Your task to perform on an android device: Show the shopping cart on target. Add logitech g903 to the cart on target, then select checkout. Image 0: 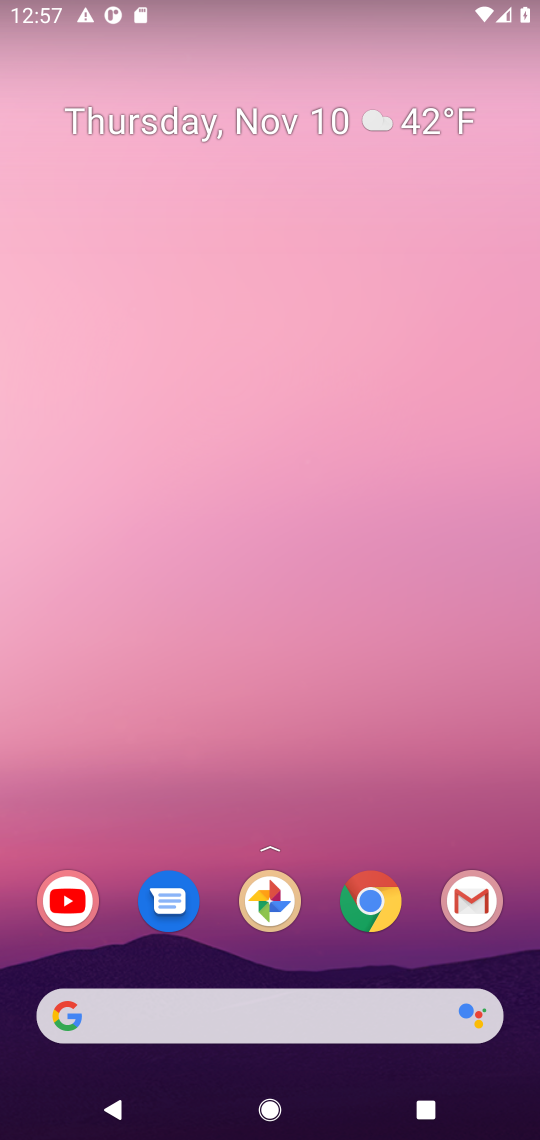
Step 0: drag from (320, 631) to (36, 14)
Your task to perform on an android device: Show the shopping cart on target. Add logitech g903 to the cart on target, then select checkout. Image 1: 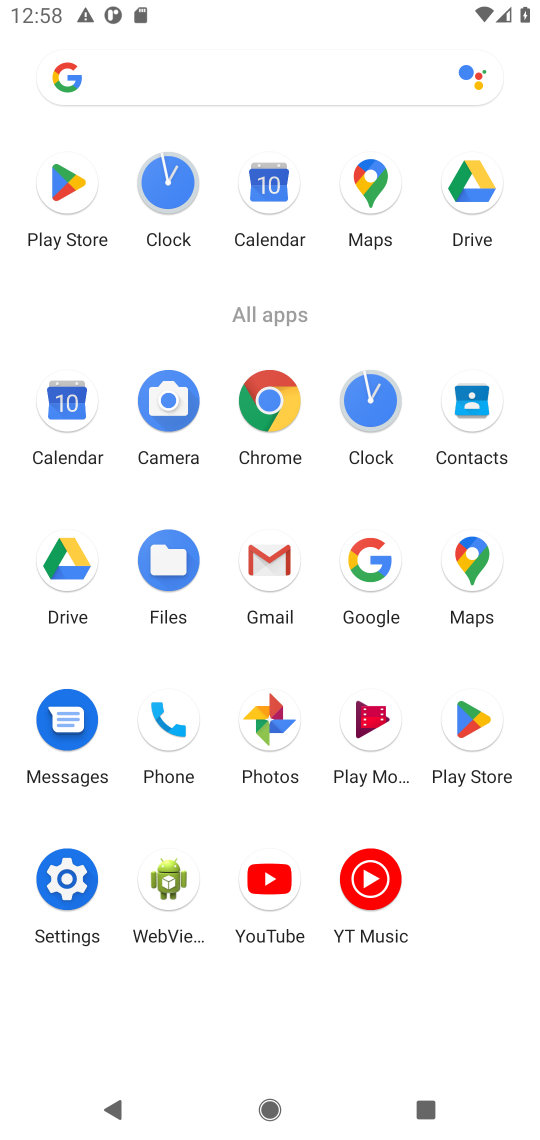
Step 1: click (265, 401)
Your task to perform on an android device: Show the shopping cart on target. Add logitech g903 to the cart on target, then select checkout. Image 2: 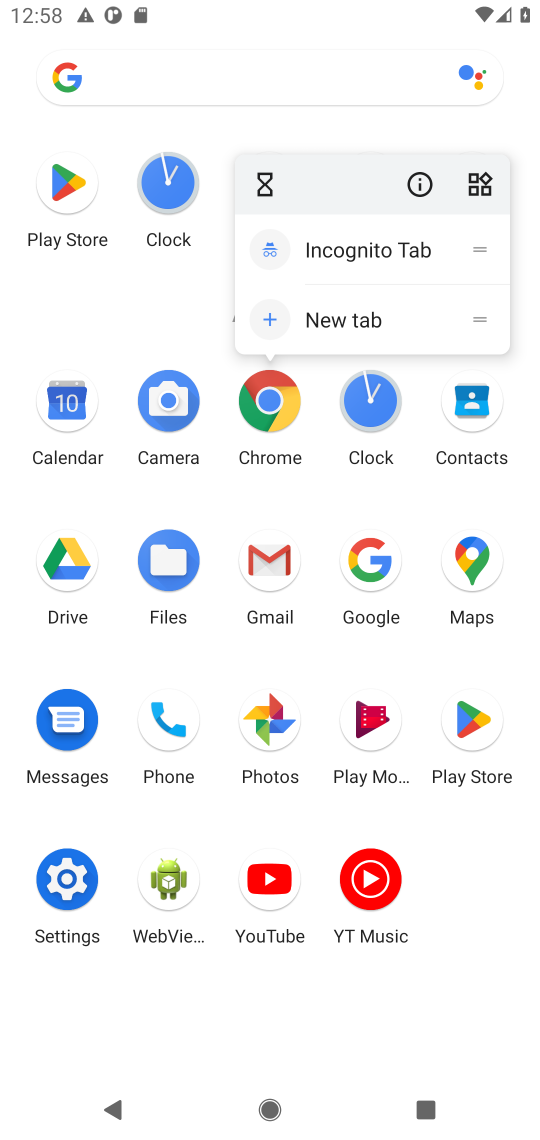
Step 2: click (239, 417)
Your task to perform on an android device: Show the shopping cart on target. Add logitech g903 to the cart on target, then select checkout. Image 3: 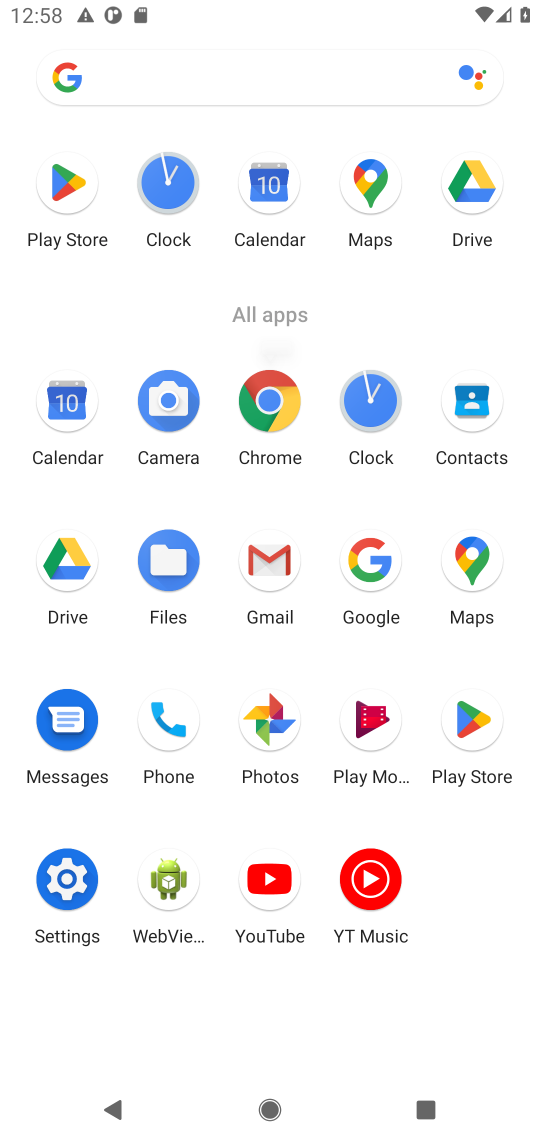
Step 3: click (250, 414)
Your task to perform on an android device: Show the shopping cart on target. Add logitech g903 to the cart on target, then select checkout. Image 4: 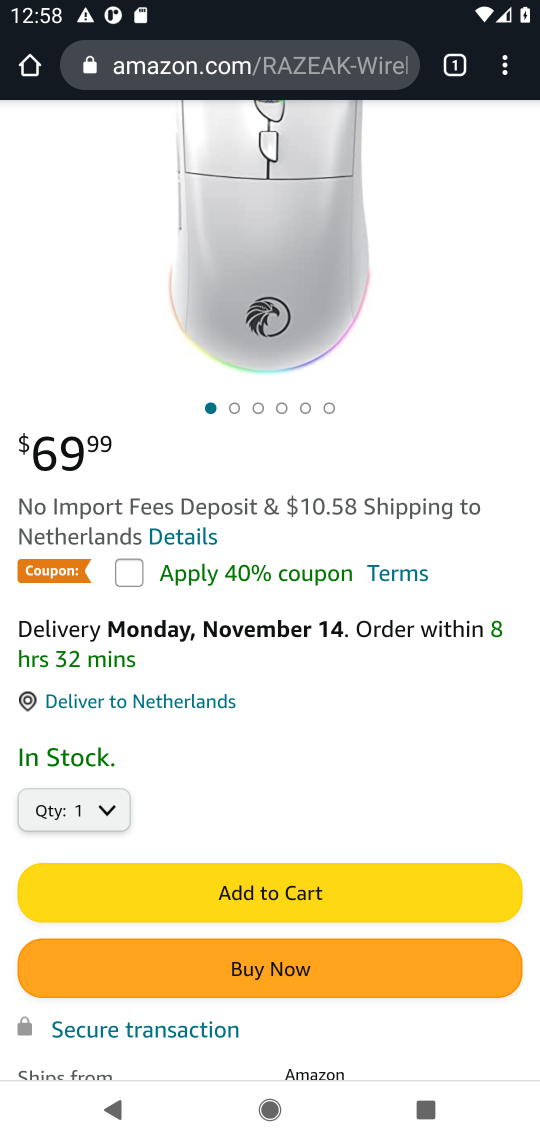
Step 4: click (198, 89)
Your task to perform on an android device: Show the shopping cart on target. Add logitech g903 to the cart on target, then select checkout. Image 5: 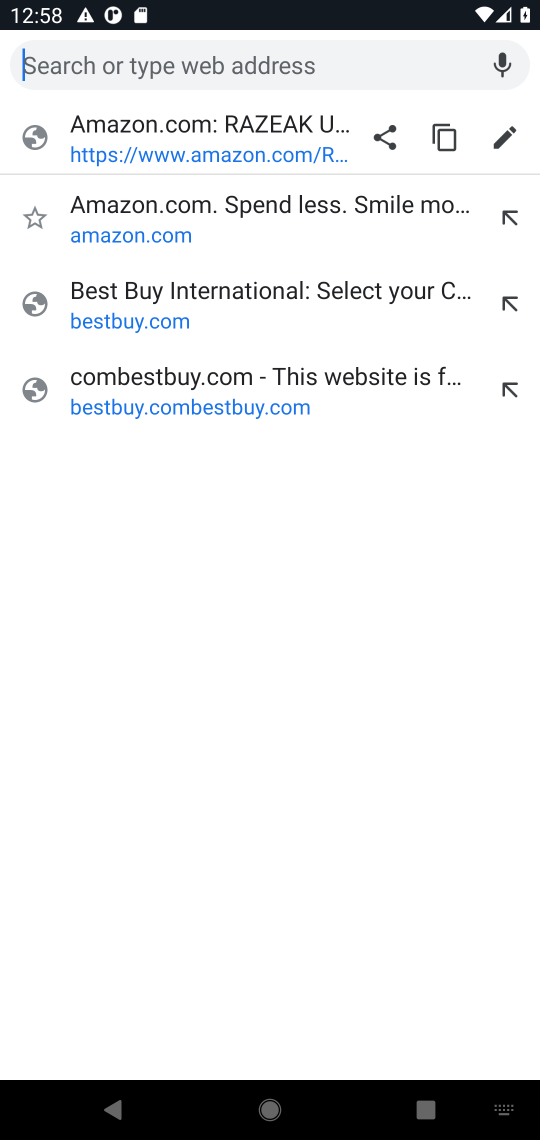
Step 5: type "target"
Your task to perform on an android device: Show the shopping cart on target. Add logitech g903 to the cart on target, then select checkout. Image 6: 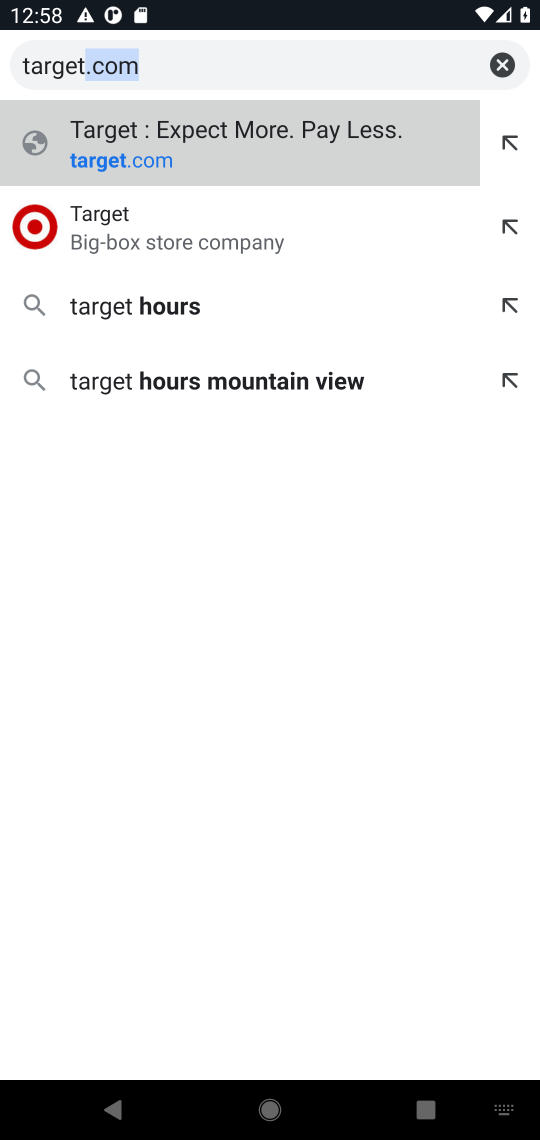
Step 6: press enter
Your task to perform on an android device: Show the shopping cart on target. Add logitech g903 to the cart on target, then select checkout. Image 7: 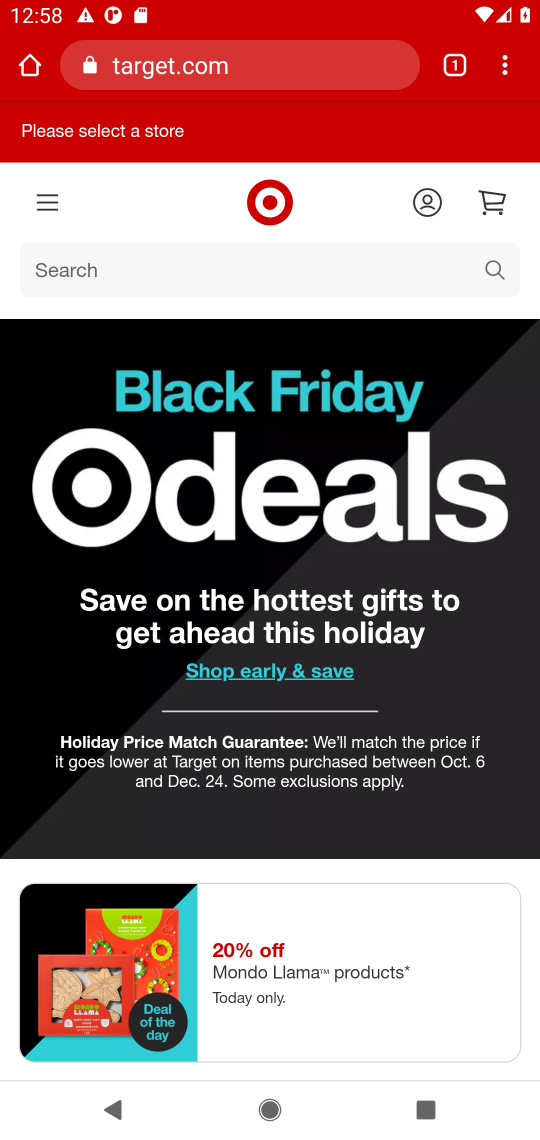
Step 7: click (131, 261)
Your task to perform on an android device: Show the shopping cart on target. Add logitech g903 to the cart on target, then select checkout. Image 8: 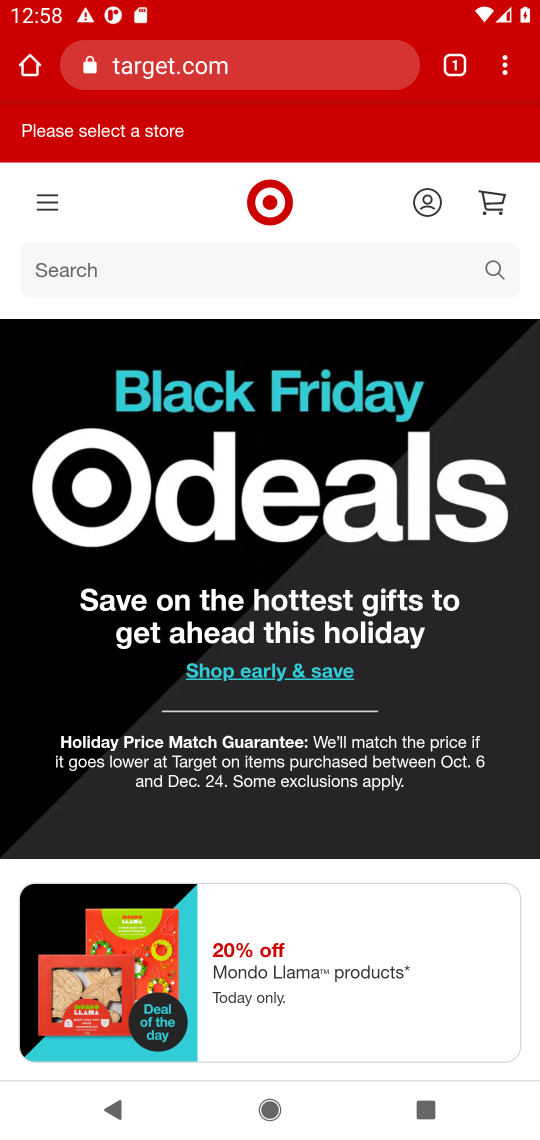
Step 8: click (199, 267)
Your task to perform on an android device: Show the shopping cart on target. Add logitech g903 to the cart on target, then select checkout. Image 9: 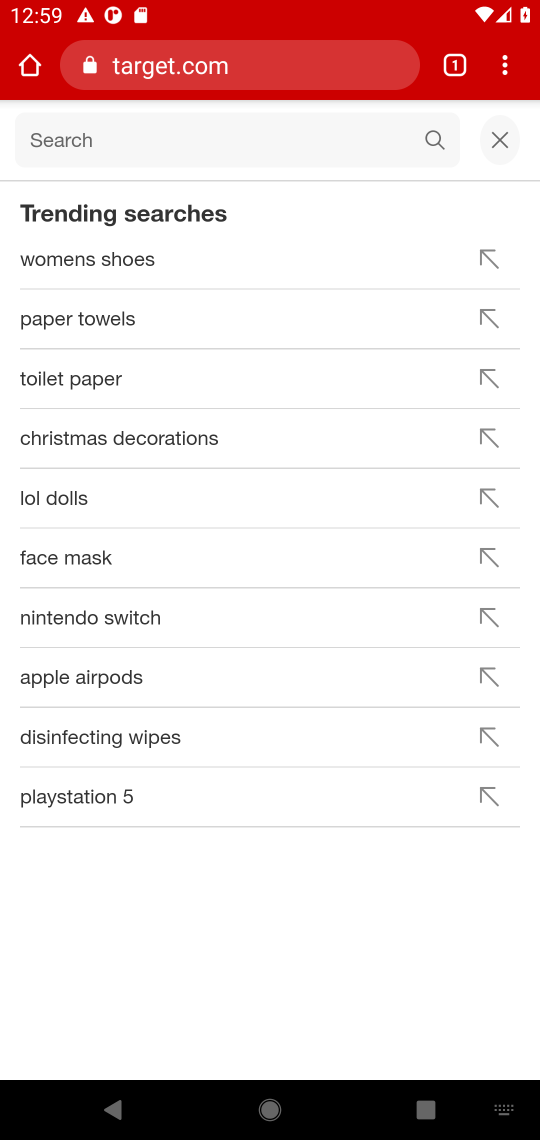
Step 9: type " logitech g903"
Your task to perform on an android device: Show the shopping cart on target. Add logitech g903 to the cart on target, then select checkout. Image 10: 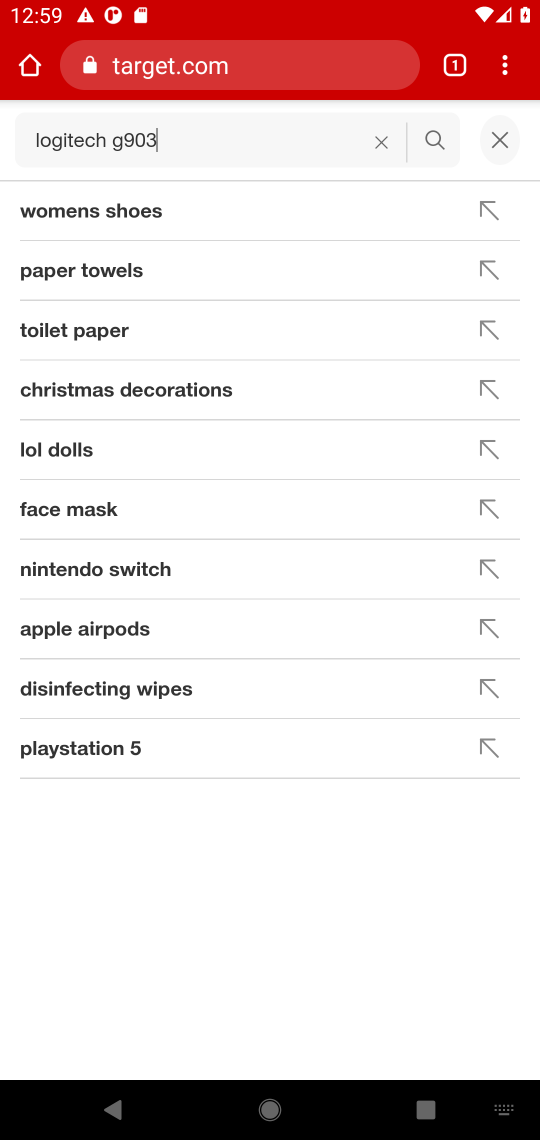
Step 10: press enter
Your task to perform on an android device: Show the shopping cart on target. Add logitech g903 to the cart on target, then select checkout. Image 11: 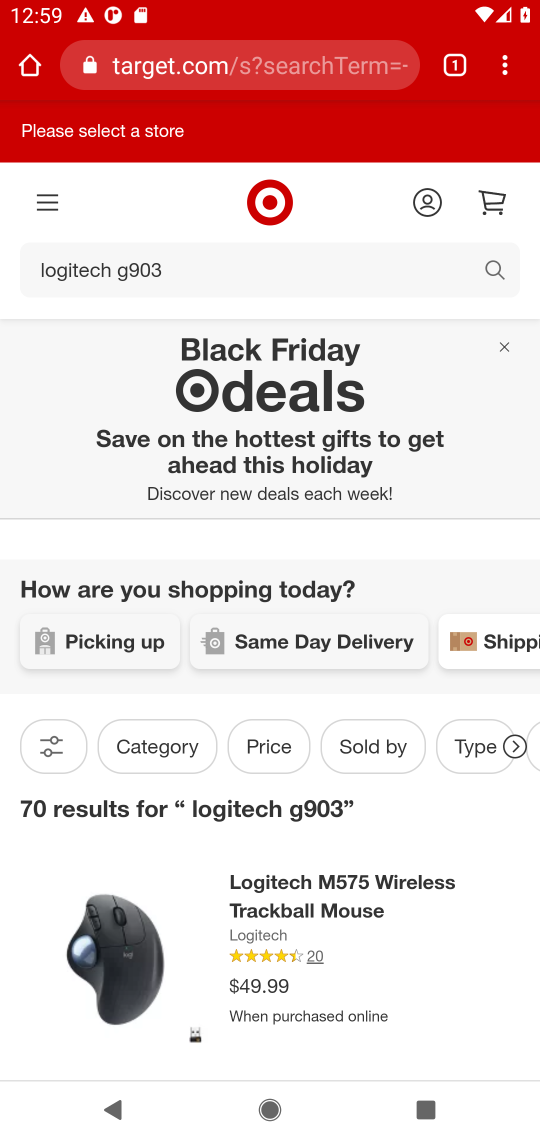
Step 11: click (287, 924)
Your task to perform on an android device: Show the shopping cart on target. Add logitech g903 to the cart on target, then select checkout. Image 12: 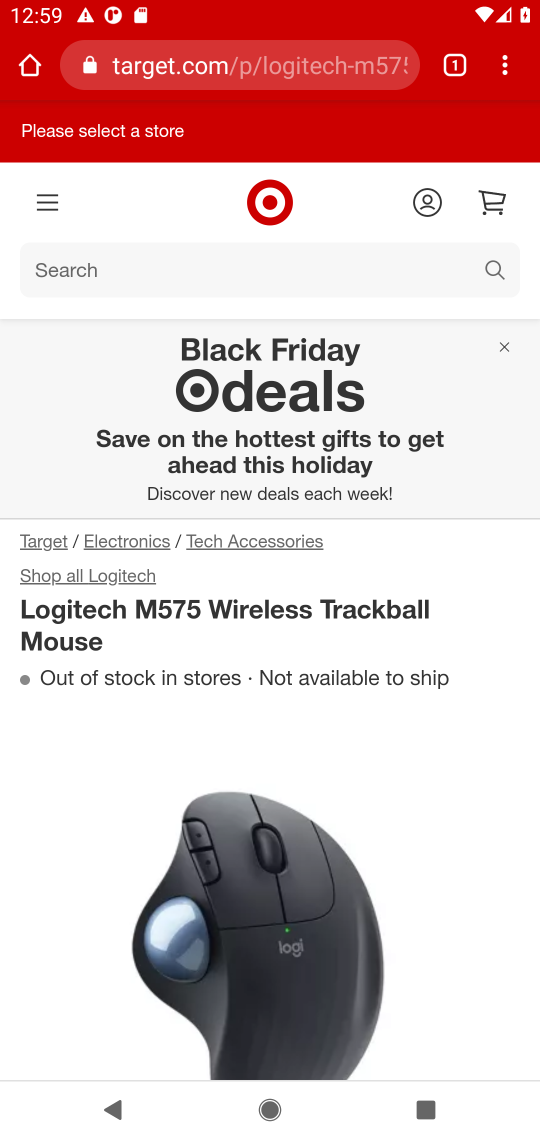
Step 12: click (353, 372)
Your task to perform on an android device: Show the shopping cart on target. Add logitech g903 to the cart on target, then select checkout. Image 13: 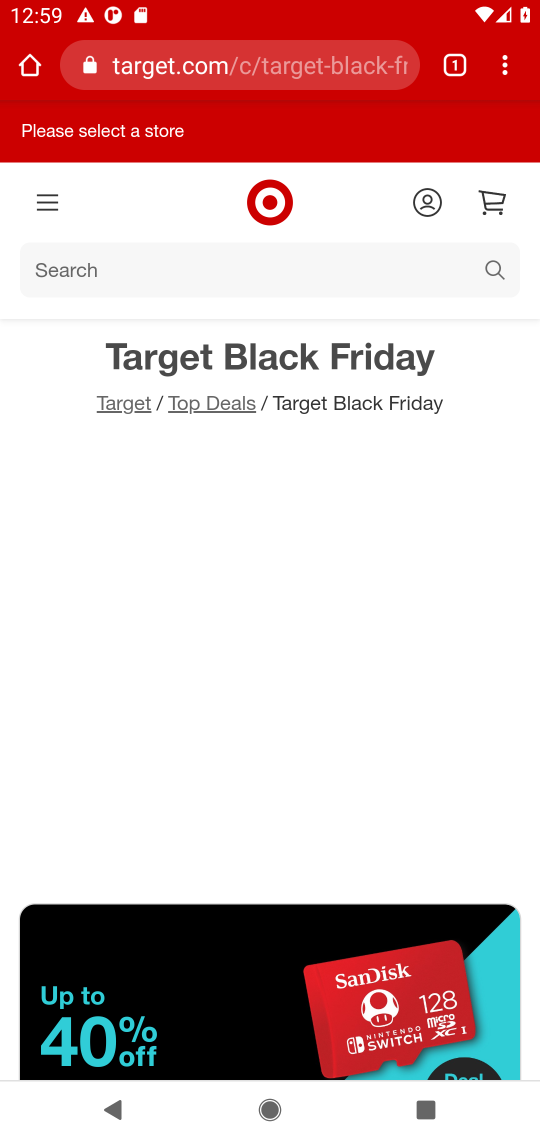
Step 13: drag from (314, 794) to (329, 352)
Your task to perform on an android device: Show the shopping cart on target. Add logitech g903 to the cart on target, then select checkout. Image 14: 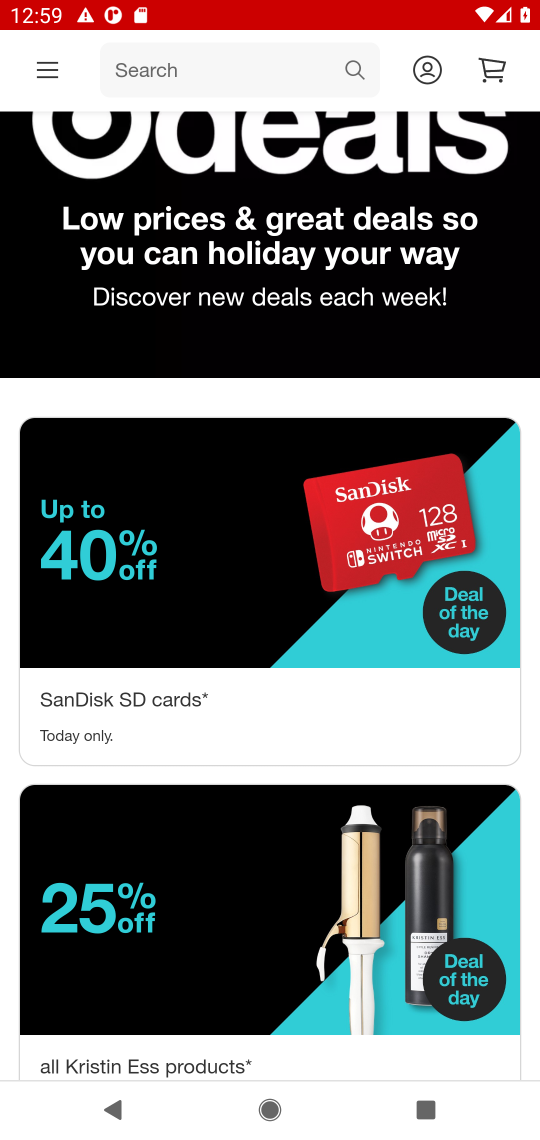
Step 14: drag from (203, 696) to (290, 232)
Your task to perform on an android device: Show the shopping cart on target. Add logitech g903 to the cart on target, then select checkout. Image 15: 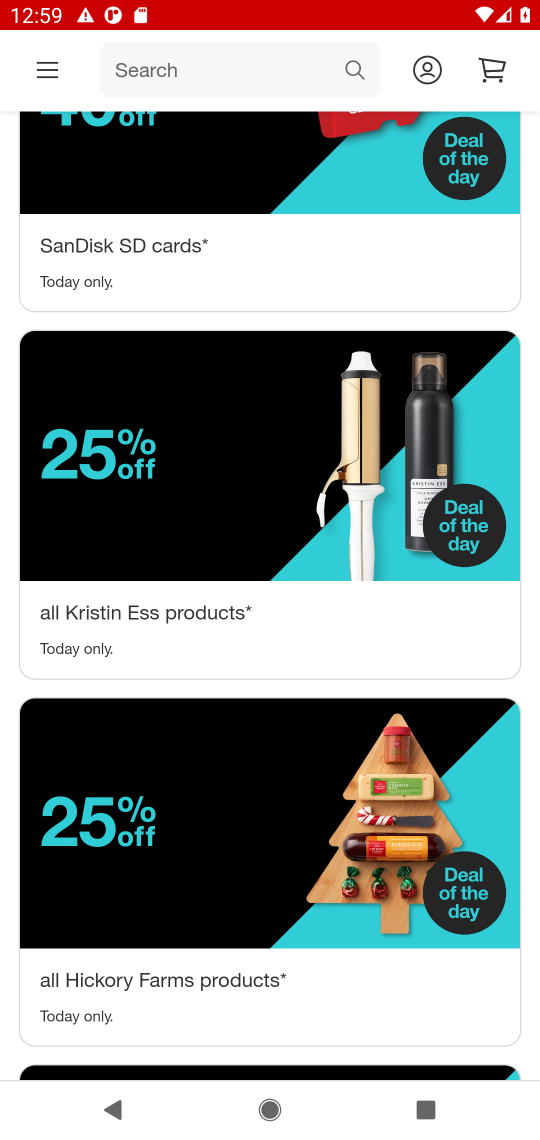
Step 15: drag from (289, 236) to (165, 715)
Your task to perform on an android device: Show the shopping cart on target. Add logitech g903 to the cart on target, then select checkout. Image 16: 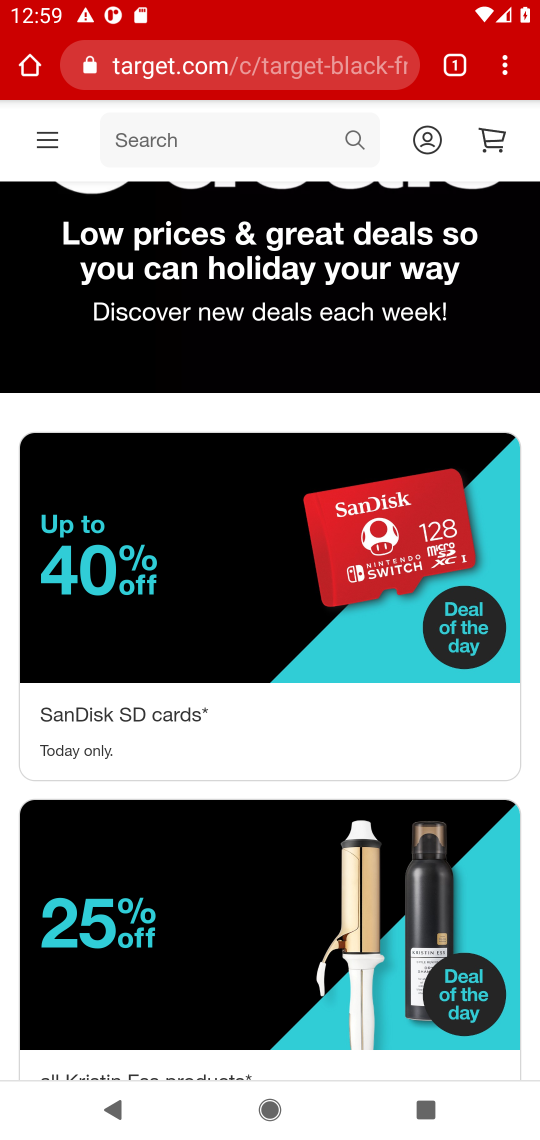
Step 16: drag from (237, 369) to (185, 789)
Your task to perform on an android device: Show the shopping cart on target. Add logitech g903 to the cart on target, then select checkout. Image 17: 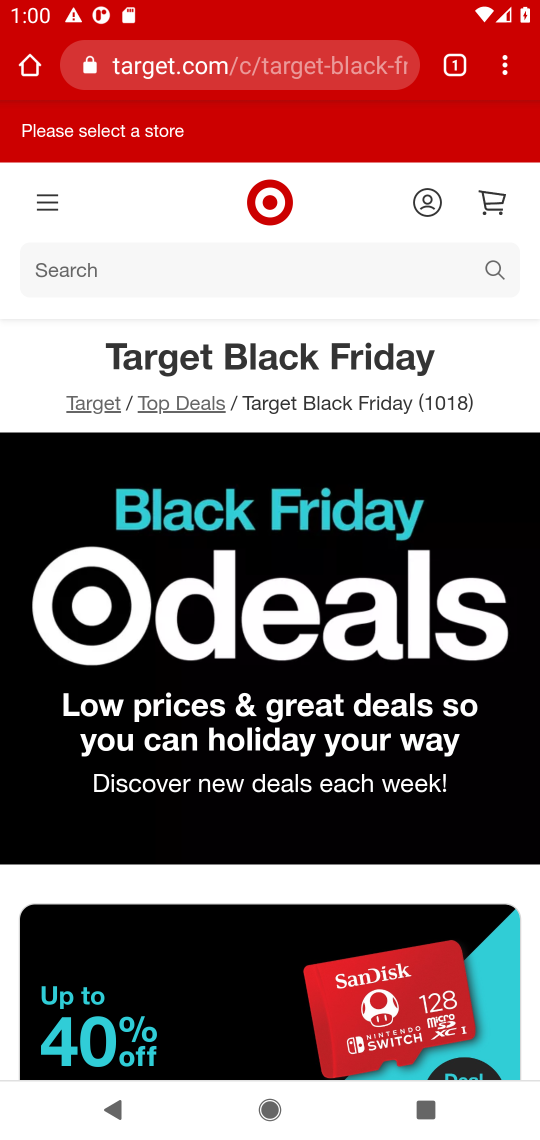
Step 17: drag from (188, 398) to (137, 708)
Your task to perform on an android device: Show the shopping cart on target. Add logitech g903 to the cart on target, then select checkout. Image 18: 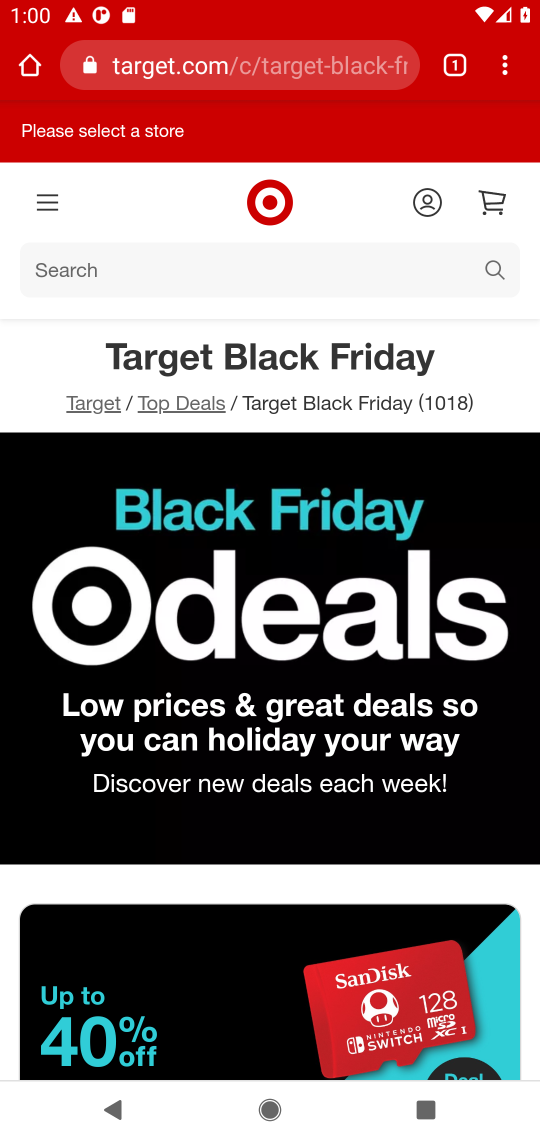
Step 18: click (109, 266)
Your task to perform on an android device: Show the shopping cart on target. Add logitech g903 to the cart on target, then select checkout. Image 19: 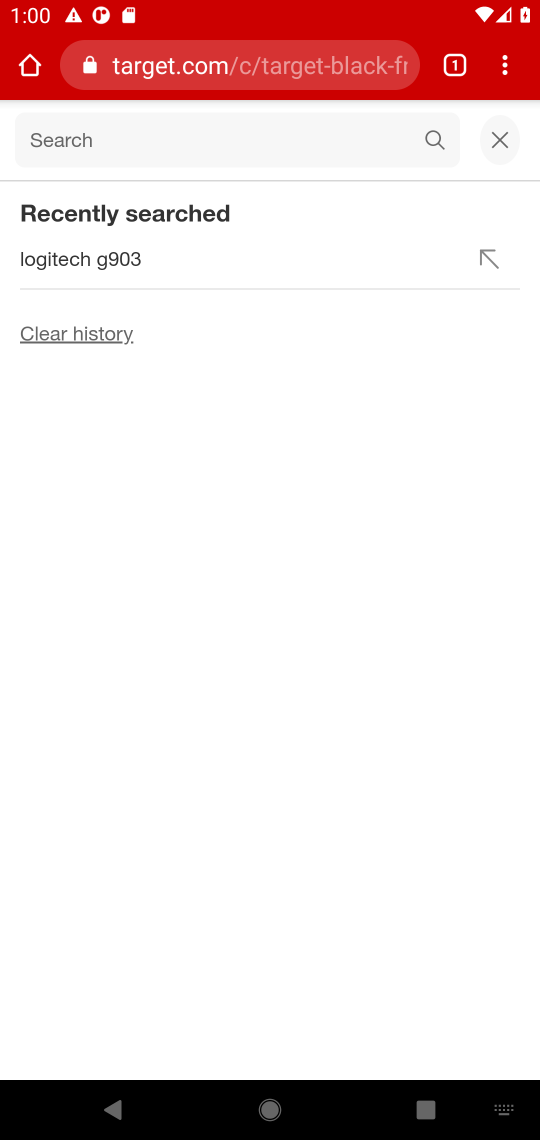
Step 19: type "logitech g903 "
Your task to perform on an android device: Show the shopping cart on target. Add logitech g903 to the cart on target, then select checkout. Image 20: 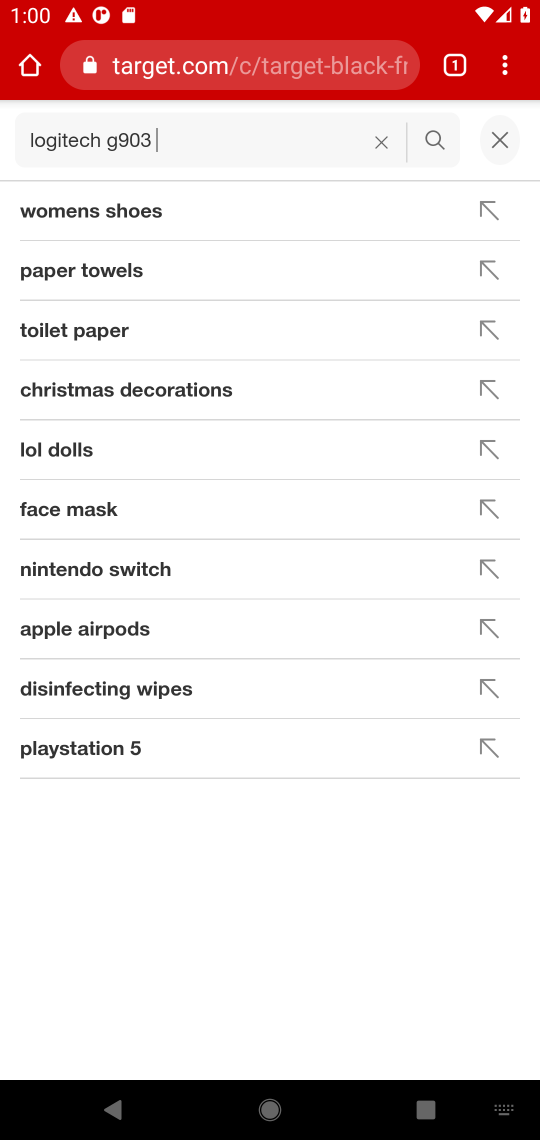
Step 20: press enter
Your task to perform on an android device: Show the shopping cart on target. Add logitech g903 to the cart on target, then select checkout. Image 21: 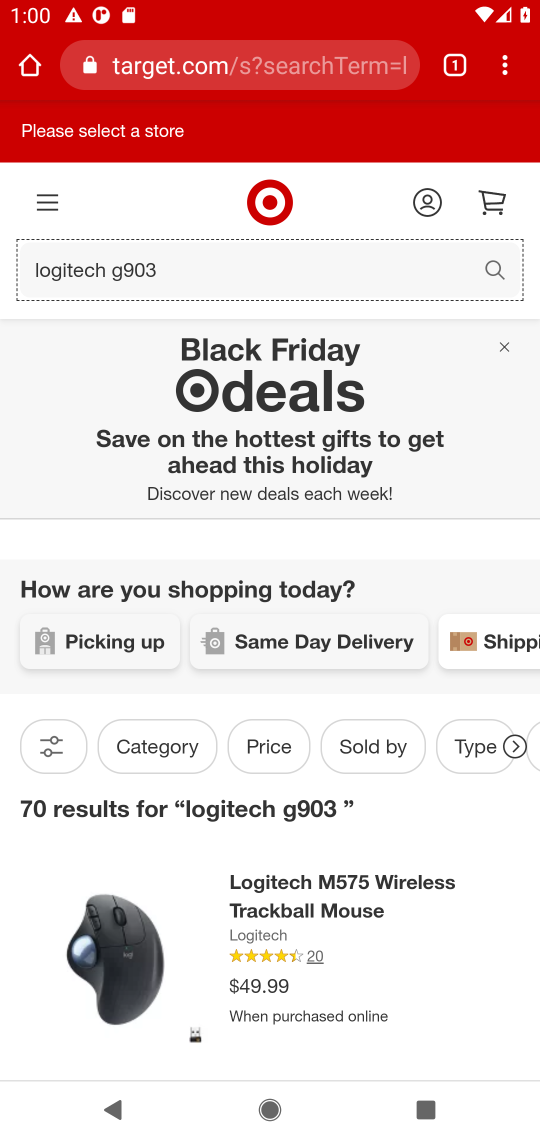
Step 21: drag from (232, 748) to (251, 341)
Your task to perform on an android device: Show the shopping cart on target. Add logitech g903 to the cart on target, then select checkout. Image 22: 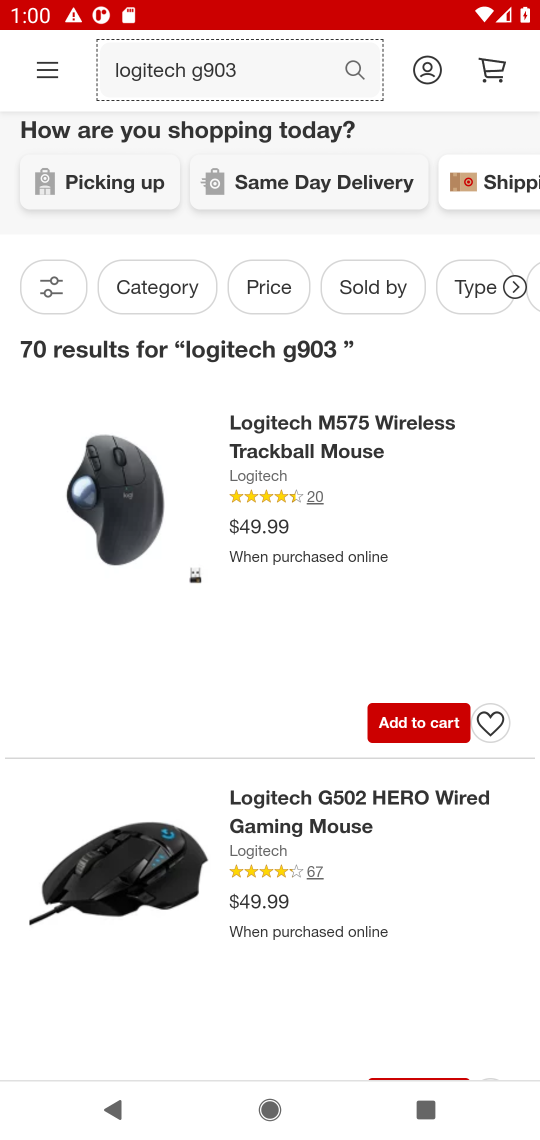
Step 22: click (286, 473)
Your task to perform on an android device: Show the shopping cart on target. Add logitech g903 to the cart on target, then select checkout. Image 23: 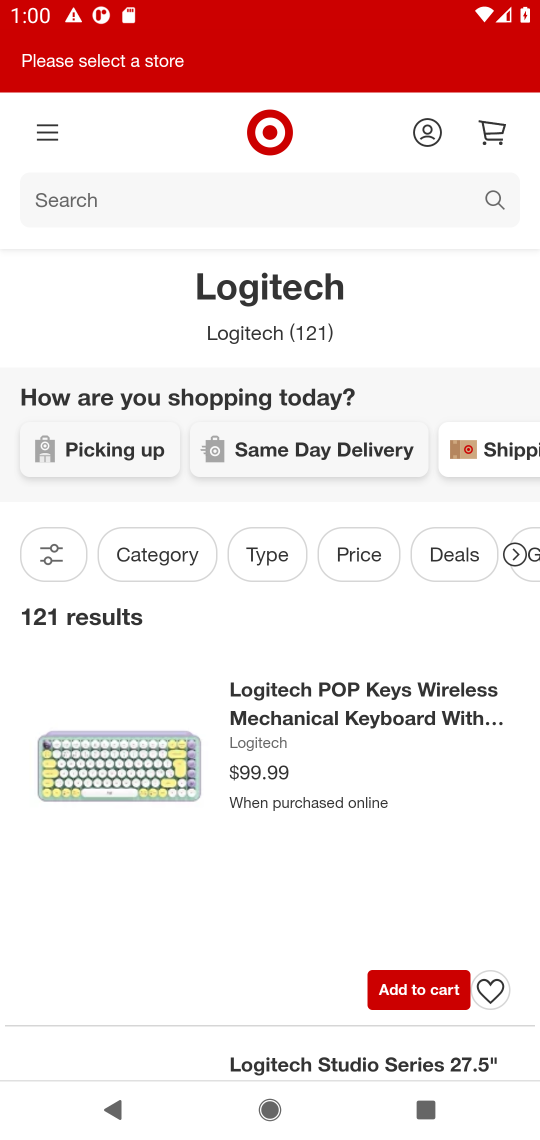
Step 23: click (416, 981)
Your task to perform on an android device: Show the shopping cart on target. Add logitech g903 to the cart on target, then select checkout. Image 24: 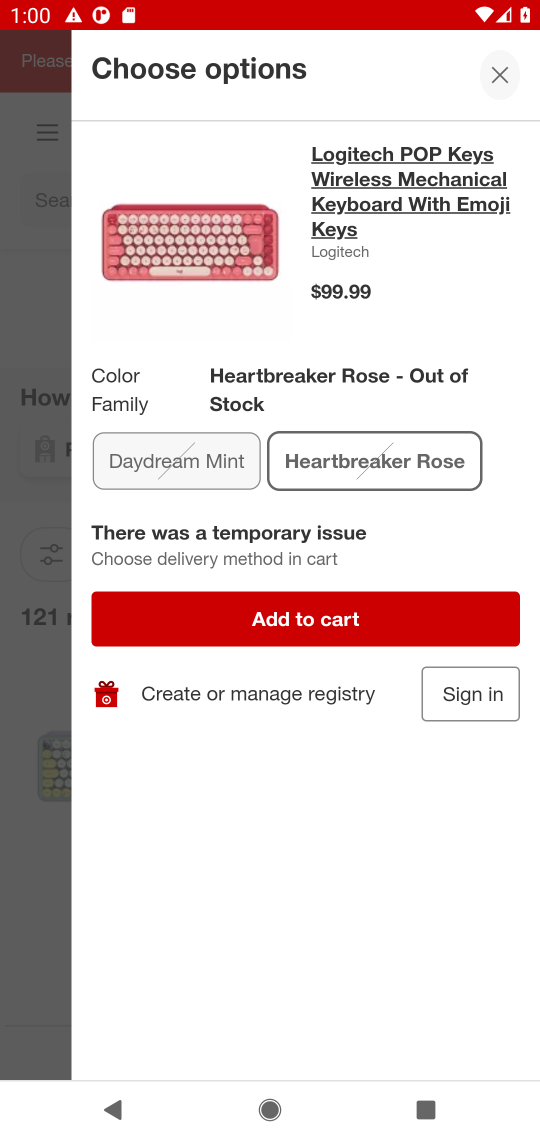
Step 24: click (271, 620)
Your task to perform on an android device: Show the shopping cart on target. Add logitech g903 to the cart on target, then select checkout. Image 25: 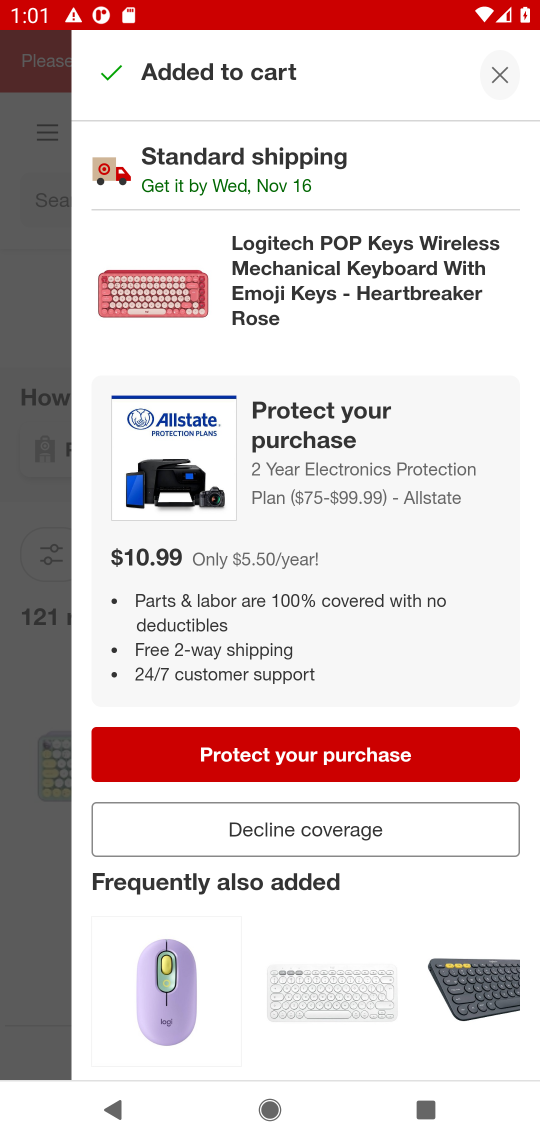
Step 25: click (505, 85)
Your task to perform on an android device: Show the shopping cart on target. Add logitech g903 to the cart on target, then select checkout. Image 26: 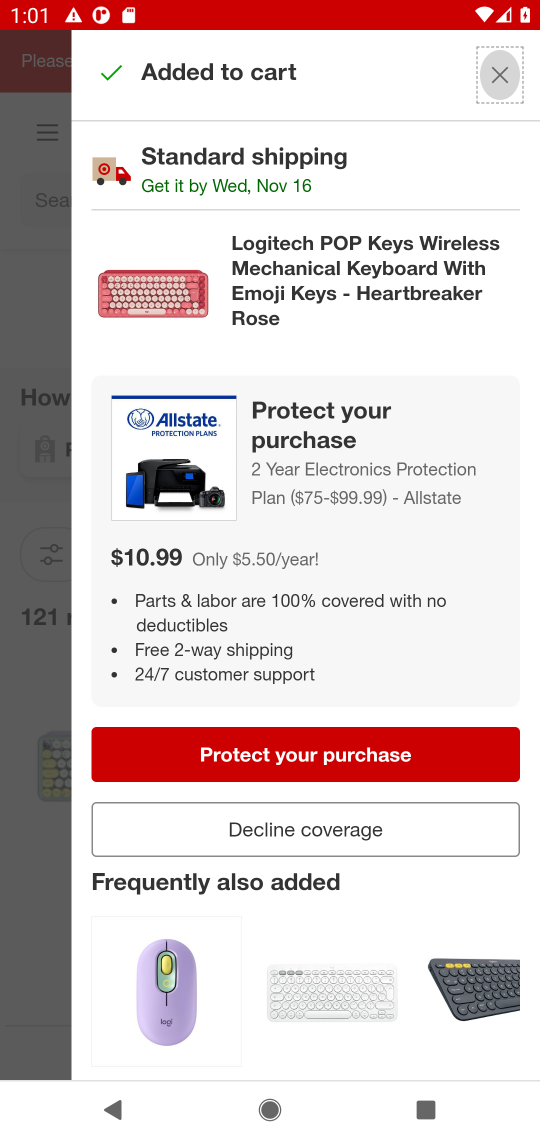
Step 26: click (492, 76)
Your task to perform on an android device: Show the shopping cart on target. Add logitech g903 to the cart on target, then select checkout. Image 27: 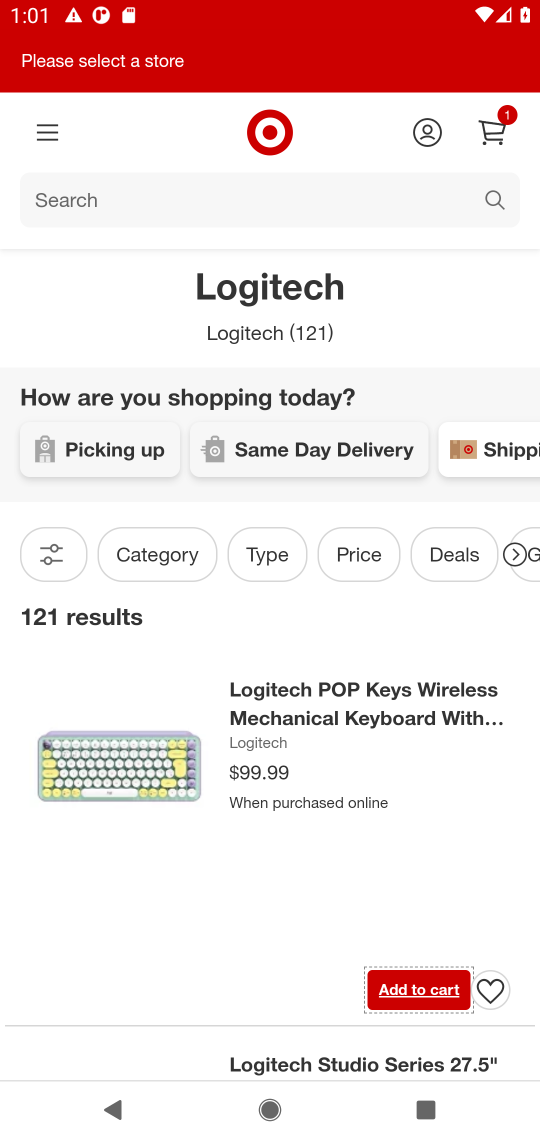
Step 27: click (485, 123)
Your task to perform on an android device: Show the shopping cart on target. Add logitech g903 to the cart on target, then select checkout. Image 28: 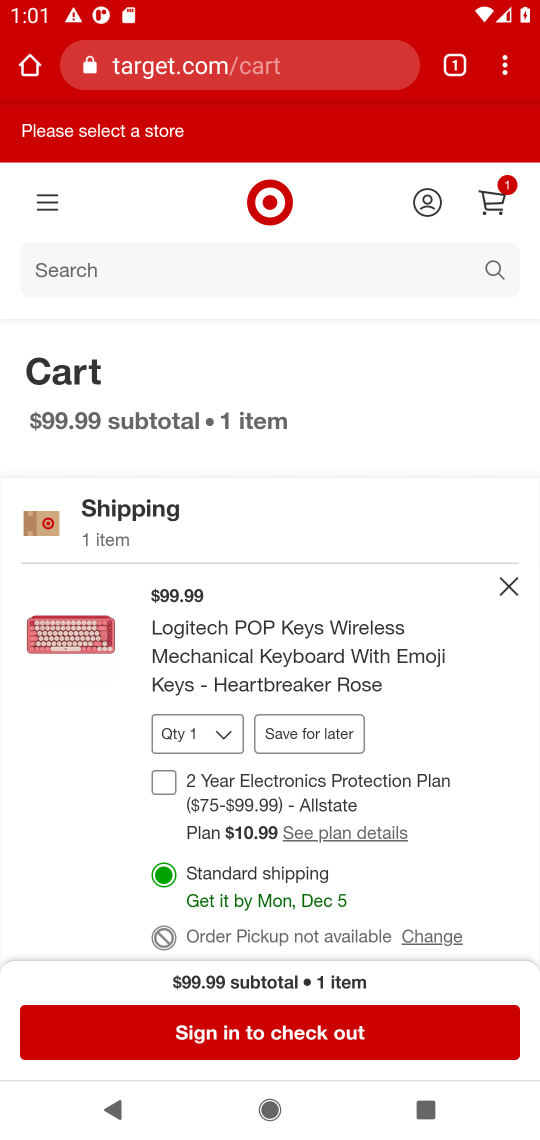
Step 28: click (289, 1032)
Your task to perform on an android device: Show the shopping cart on target. Add logitech g903 to the cart on target, then select checkout. Image 29: 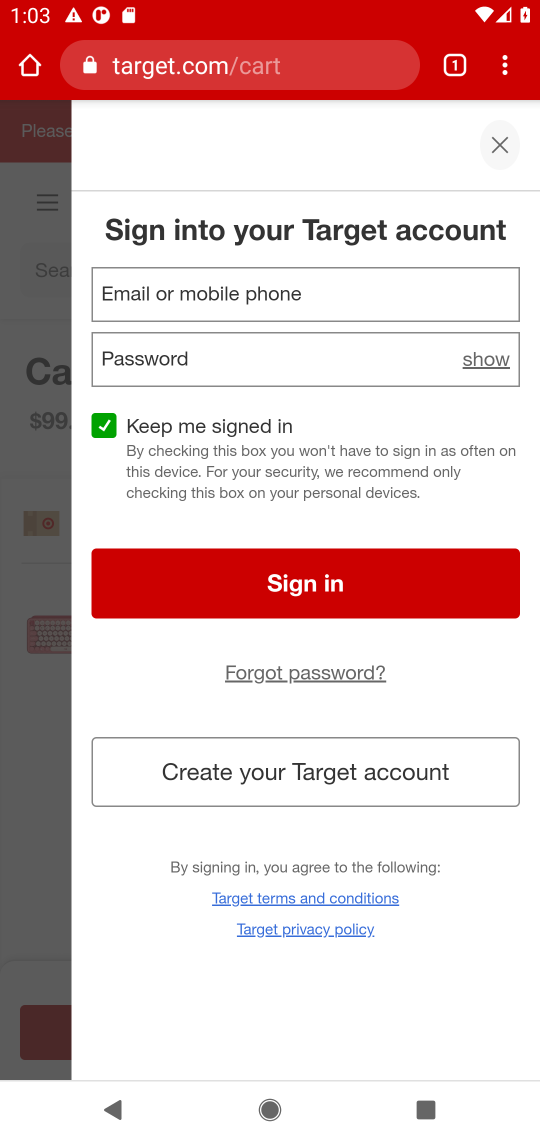
Step 29: task complete